Your task to perform on an android device: toggle improve location accuracy Image 0: 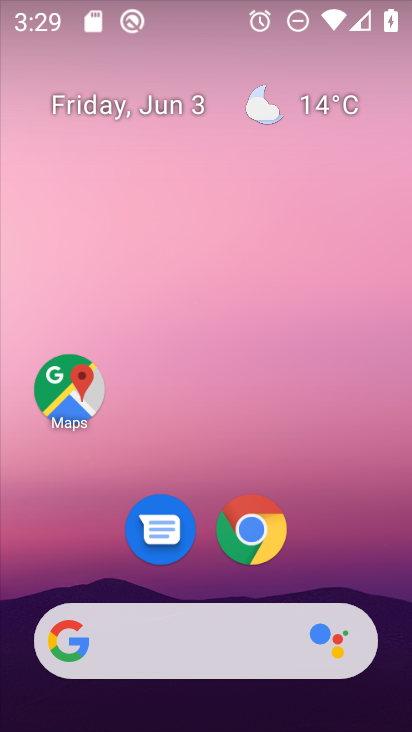
Step 0: drag from (368, 556) to (352, 223)
Your task to perform on an android device: toggle improve location accuracy Image 1: 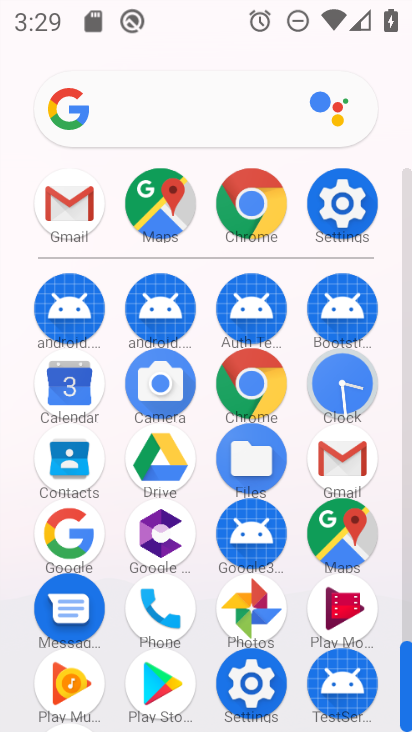
Step 1: click (355, 210)
Your task to perform on an android device: toggle improve location accuracy Image 2: 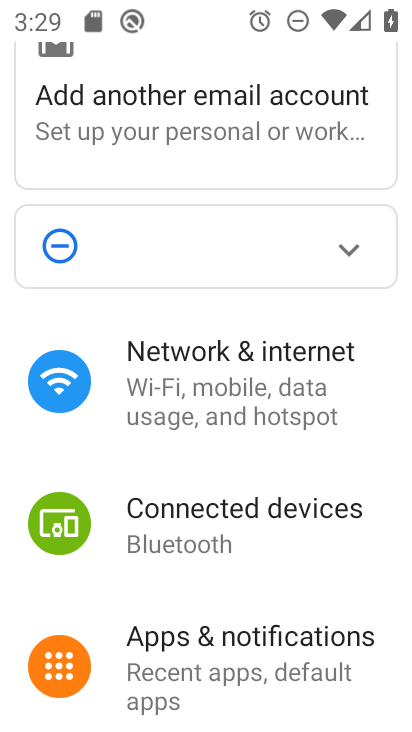
Step 2: drag from (352, 554) to (372, 392)
Your task to perform on an android device: toggle improve location accuracy Image 3: 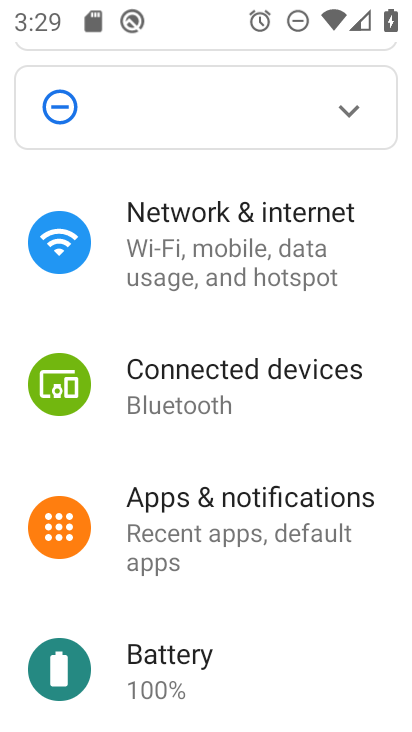
Step 3: drag from (369, 599) to (366, 466)
Your task to perform on an android device: toggle improve location accuracy Image 4: 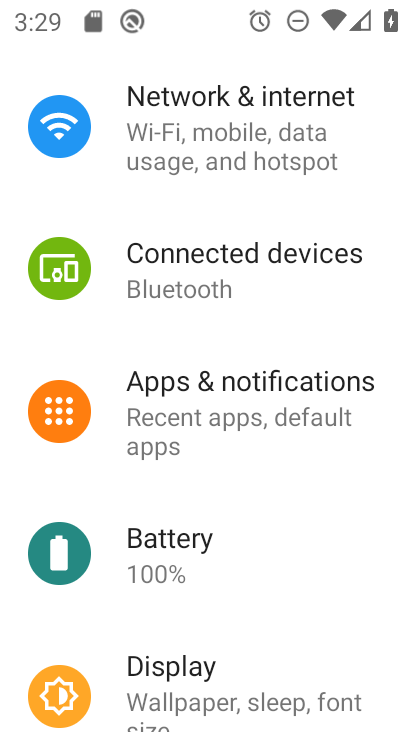
Step 4: drag from (351, 588) to (355, 447)
Your task to perform on an android device: toggle improve location accuracy Image 5: 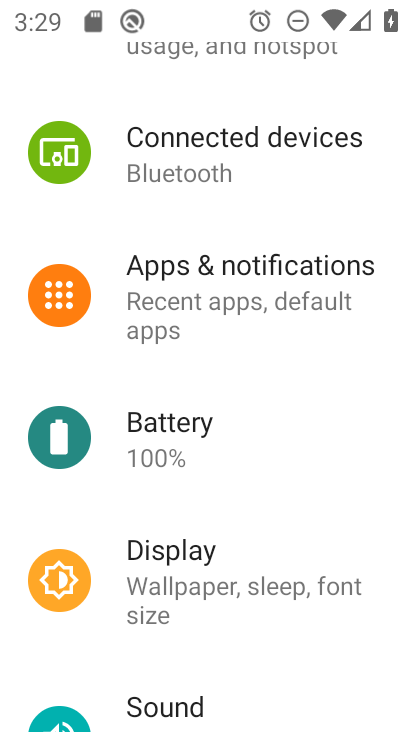
Step 5: drag from (351, 623) to (348, 474)
Your task to perform on an android device: toggle improve location accuracy Image 6: 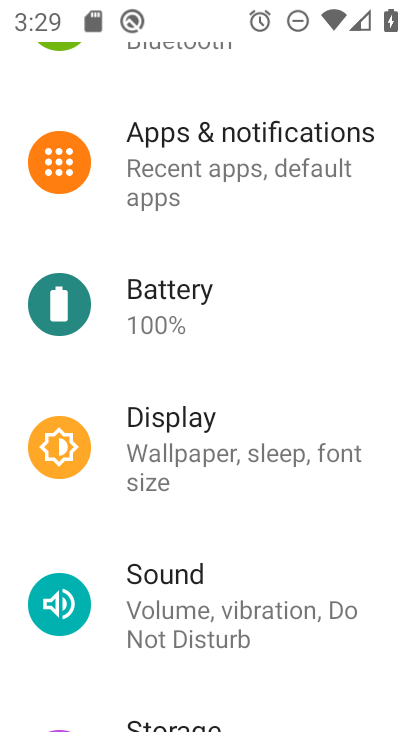
Step 6: drag from (354, 604) to (349, 412)
Your task to perform on an android device: toggle improve location accuracy Image 7: 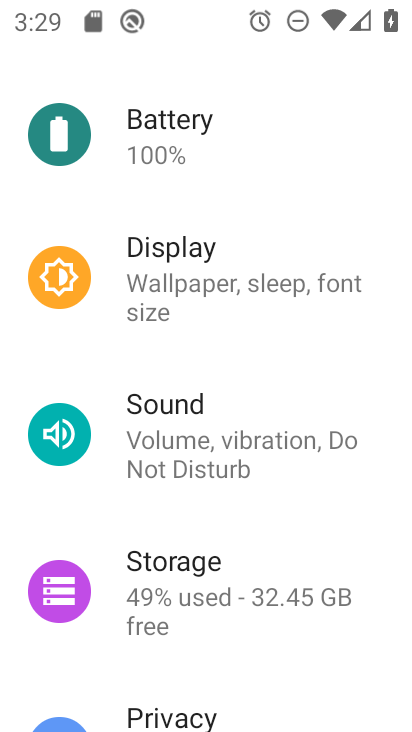
Step 7: drag from (372, 608) to (374, 389)
Your task to perform on an android device: toggle improve location accuracy Image 8: 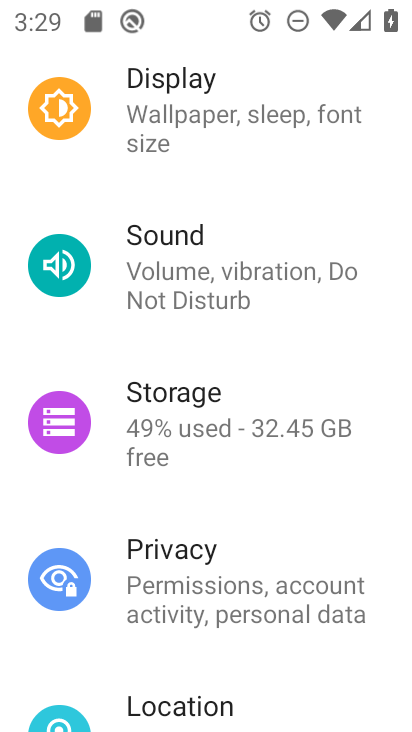
Step 8: drag from (370, 529) to (348, 329)
Your task to perform on an android device: toggle improve location accuracy Image 9: 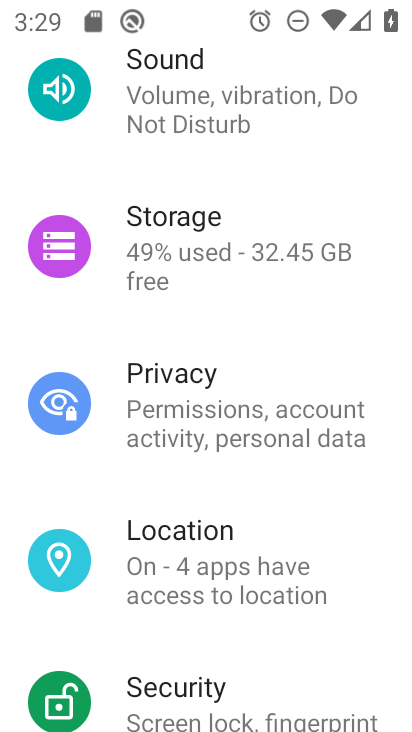
Step 9: drag from (363, 598) to (350, 386)
Your task to perform on an android device: toggle improve location accuracy Image 10: 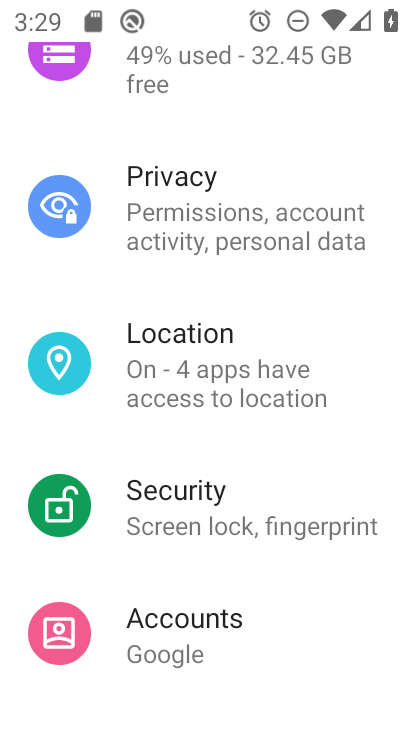
Step 10: click (239, 366)
Your task to perform on an android device: toggle improve location accuracy Image 11: 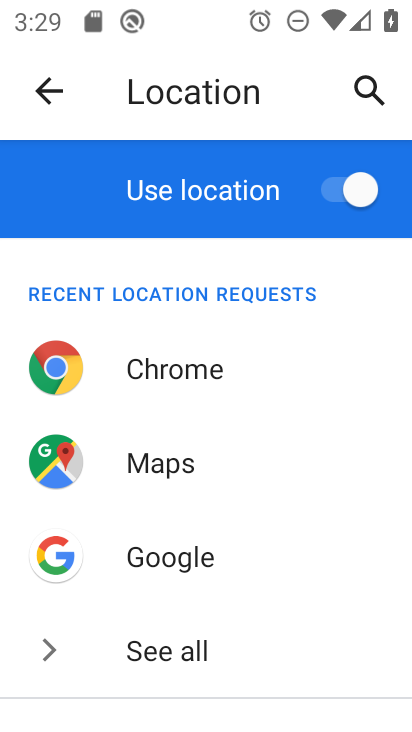
Step 11: drag from (325, 555) to (312, 418)
Your task to perform on an android device: toggle improve location accuracy Image 12: 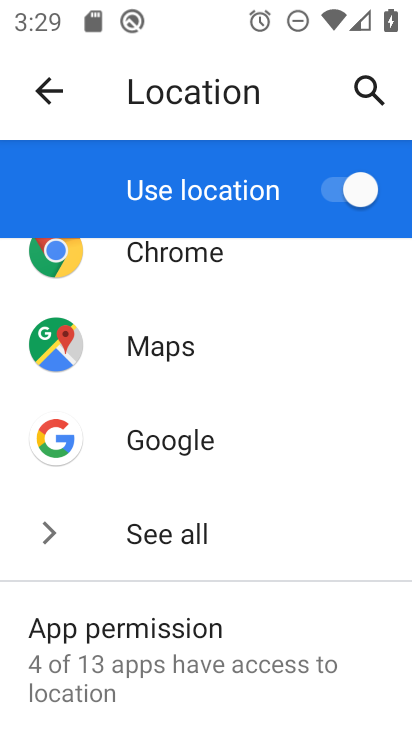
Step 12: drag from (329, 544) to (329, 383)
Your task to perform on an android device: toggle improve location accuracy Image 13: 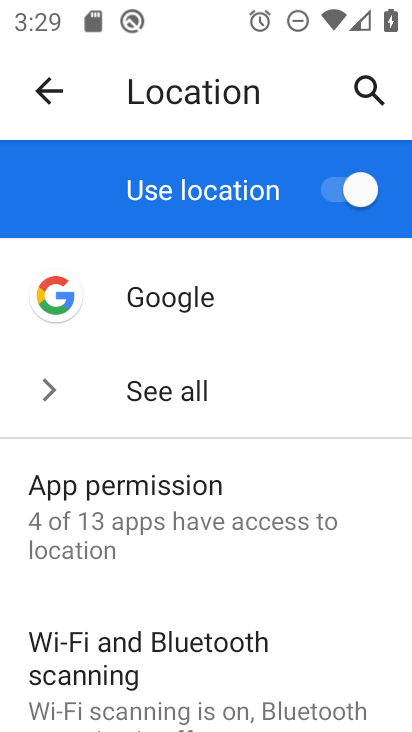
Step 13: drag from (334, 611) to (325, 423)
Your task to perform on an android device: toggle improve location accuracy Image 14: 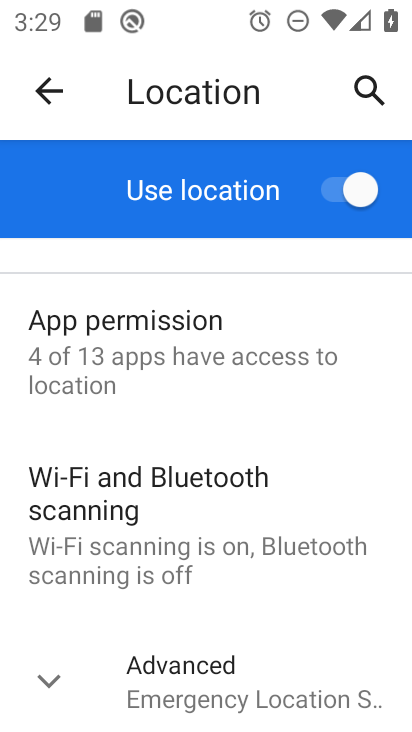
Step 14: drag from (335, 625) to (333, 428)
Your task to perform on an android device: toggle improve location accuracy Image 15: 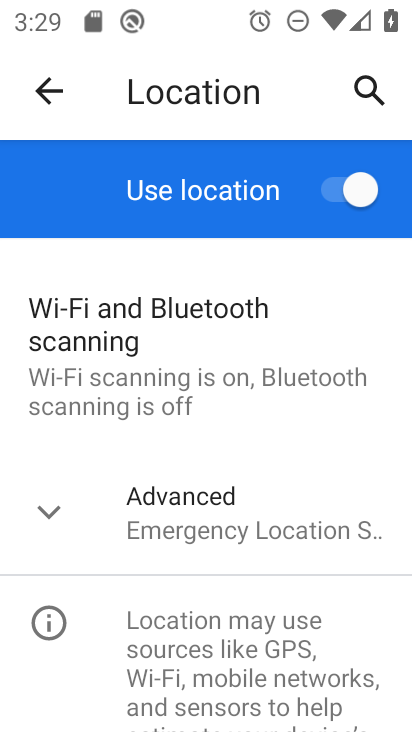
Step 15: click (322, 537)
Your task to perform on an android device: toggle improve location accuracy Image 16: 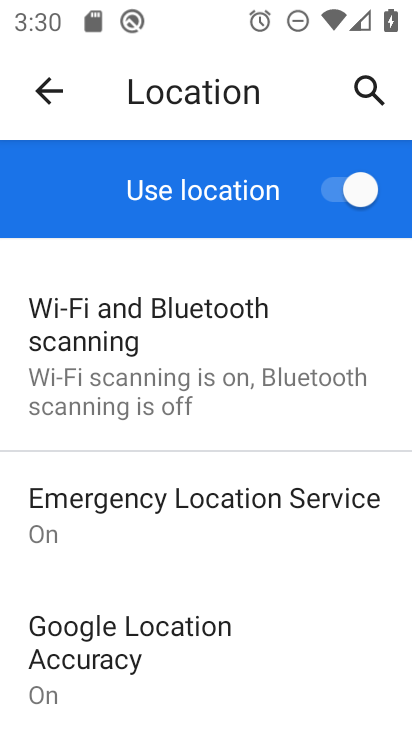
Step 16: drag from (332, 569) to (359, 432)
Your task to perform on an android device: toggle improve location accuracy Image 17: 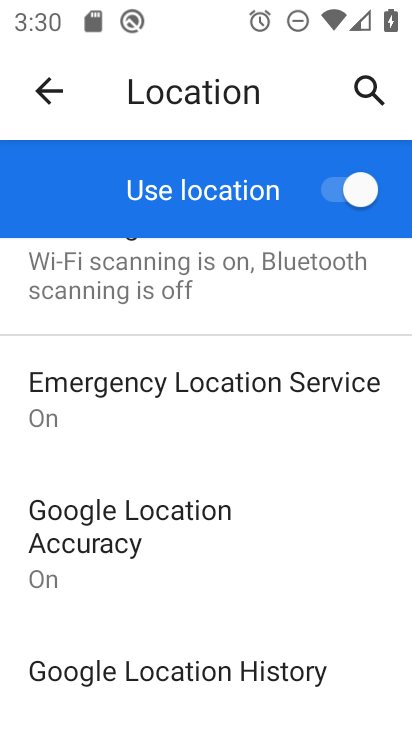
Step 17: click (182, 561)
Your task to perform on an android device: toggle improve location accuracy Image 18: 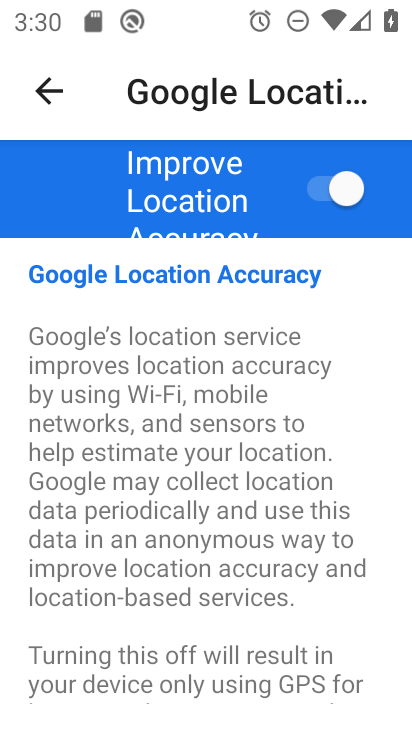
Step 18: task complete